Your task to perform on an android device: check data usage Image 0: 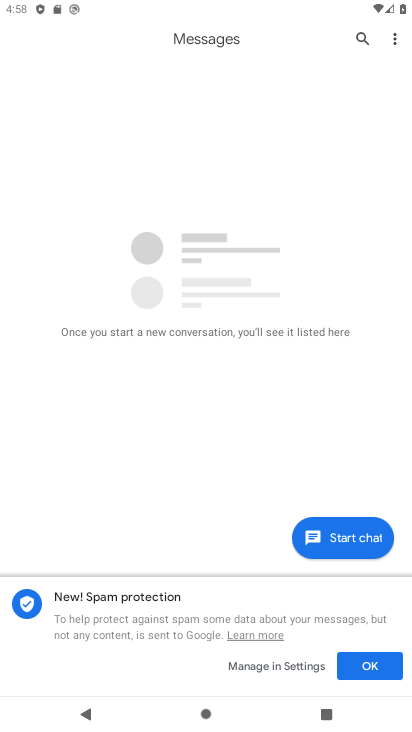
Step 0: press home button
Your task to perform on an android device: check data usage Image 1: 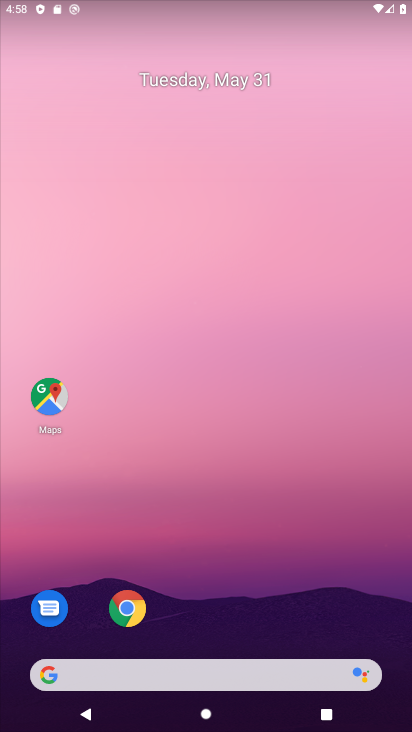
Step 1: drag from (242, 610) to (180, 61)
Your task to perform on an android device: check data usage Image 2: 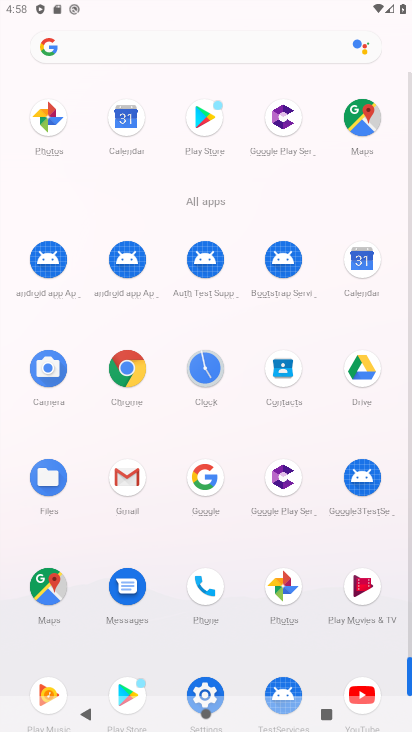
Step 2: drag from (174, 536) to (160, 313)
Your task to perform on an android device: check data usage Image 3: 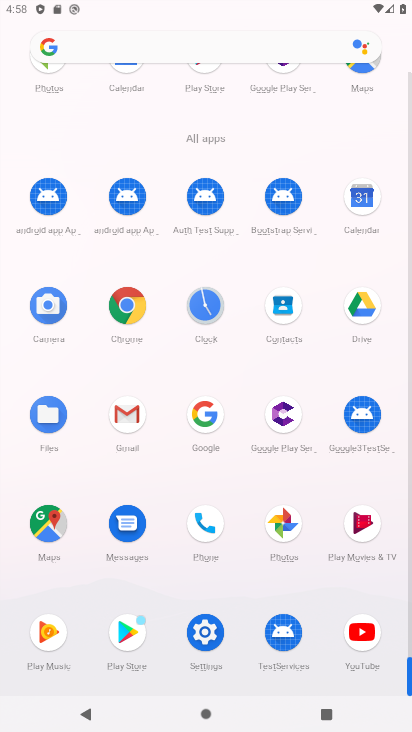
Step 3: click (206, 632)
Your task to perform on an android device: check data usage Image 4: 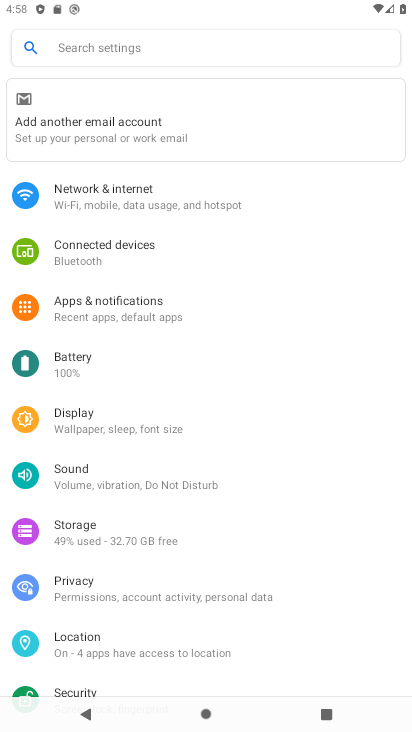
Step 4: click (143, 195)
Your task to perform on an android device: check data usage Image 5: 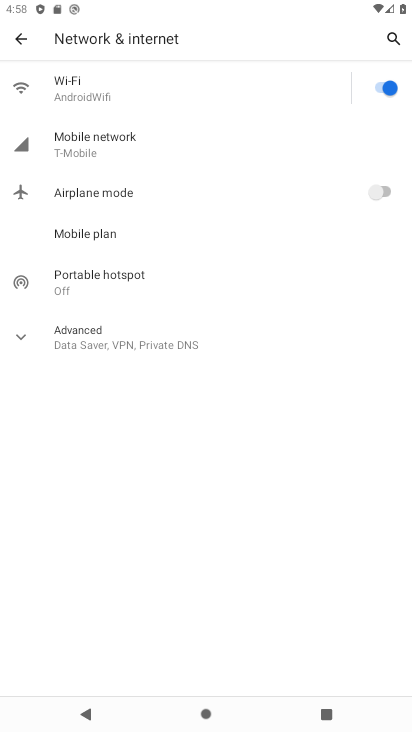
Step 5: click (109, 132)
Your task to perform on an android device: check data usage Image 6: 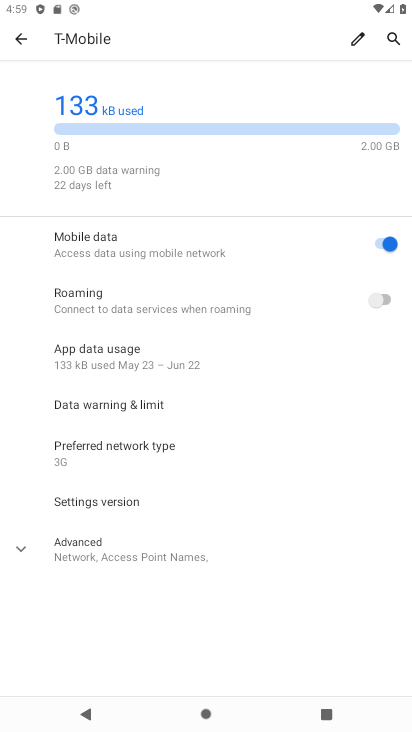
Step 6: task complete